Your task to perform on an android device: turn notification dots on Image 0: 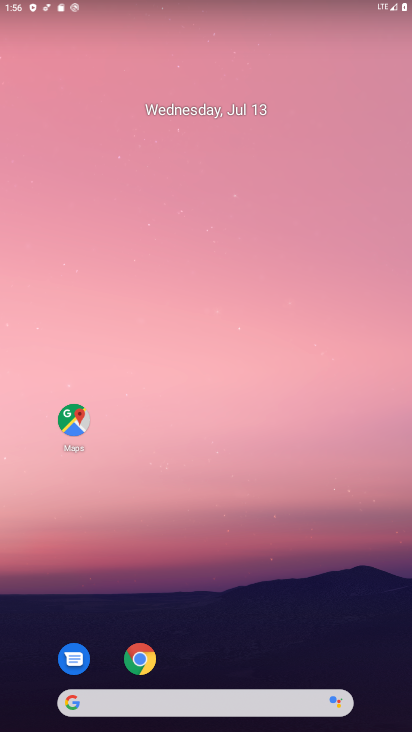
Step 0: drag from (365, 678) to (309, 92)
Your task to perform on an android device: turn notification dots on Image 1: 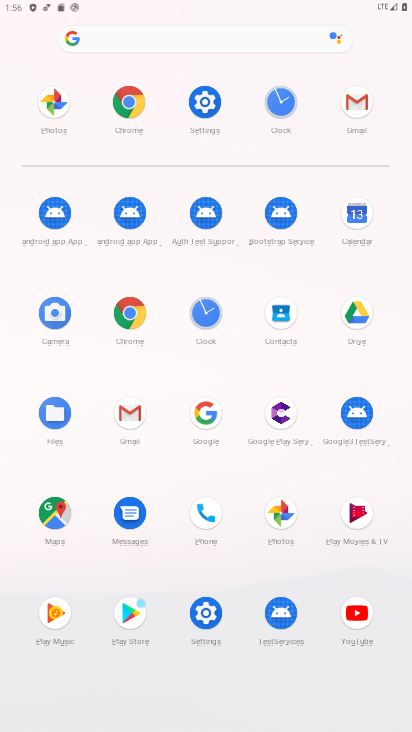
Step 1: click (206, 612)
Your task to perform on an android device: turn notification dots on Image 2: 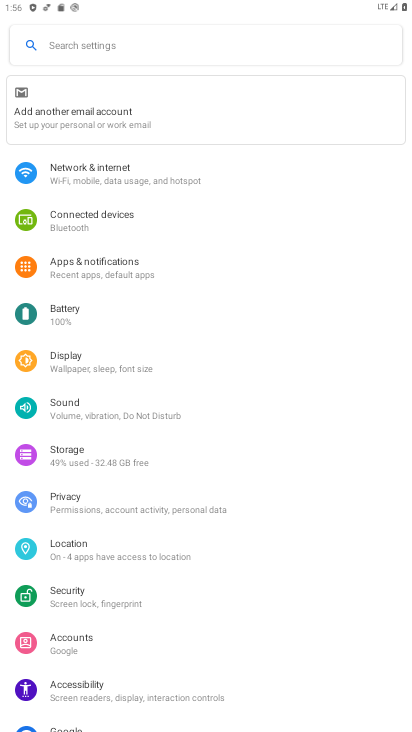
Step 2: click (83, 260)
Your task to perform on an android device: turn notification dots on Image 3: 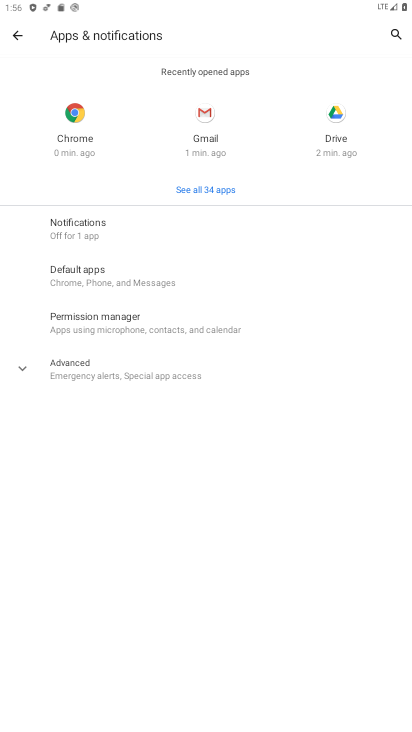
Step 3: click (61, 219)
Your task to perform on an android device: turn notification dots on Image 4: 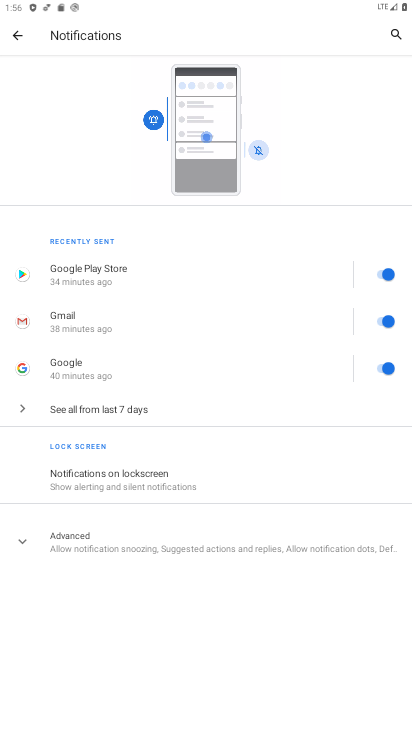
Step 4: click (9, 543)
Your task to perform on an android device: turn notification dots on Image 5: 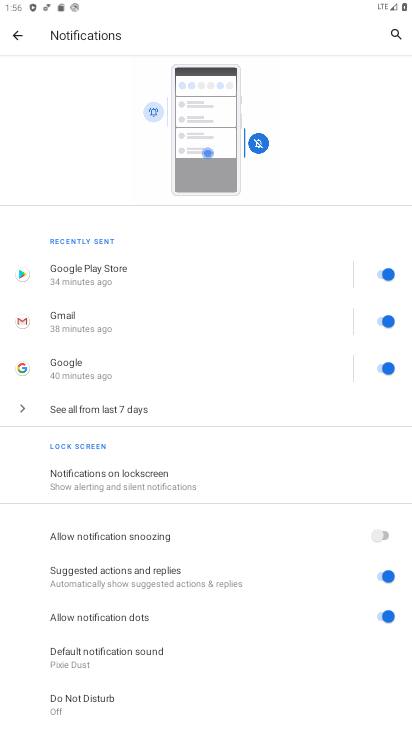
Step 5: task complete